Your task to perform on an android device: Open Chrome and go to settings Image 0: 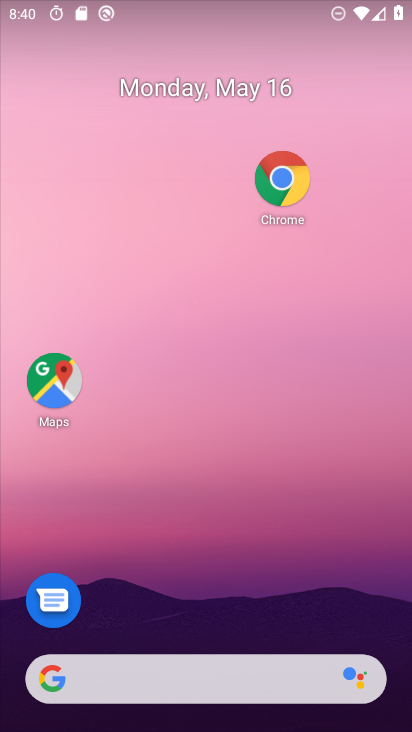
Step 0: click (293, 193)
Your task to perform on an android device: Open Chrome and go to settings Image 1: 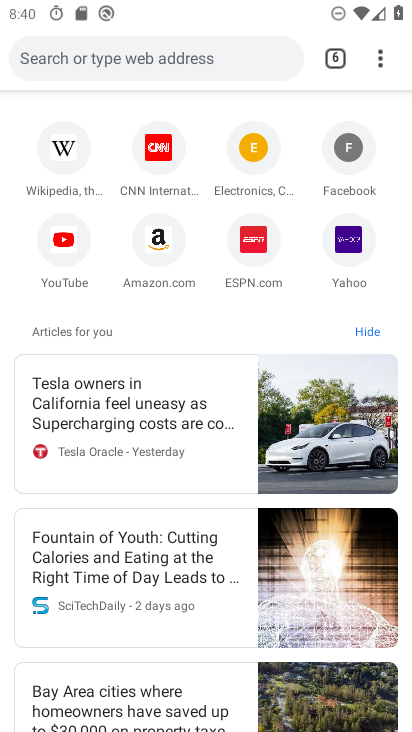
Step 1: task complete